Your task to perform on an android device: Search for Mexican restaurants on Maps Image 0: 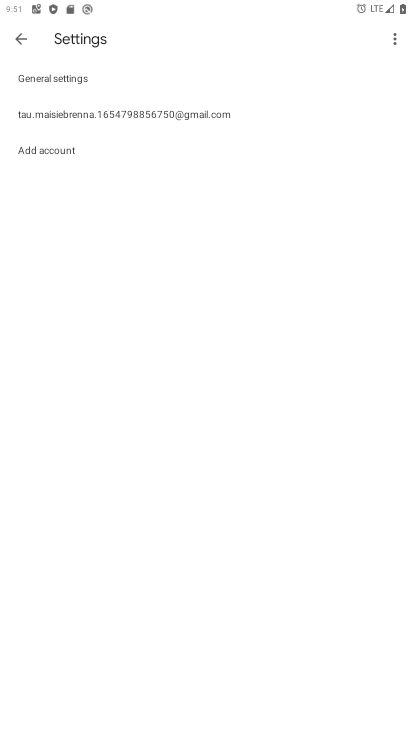
Step 0: press home button
Your task to perform on an android device: Search for Mexican restaurants on Maps Image 1: 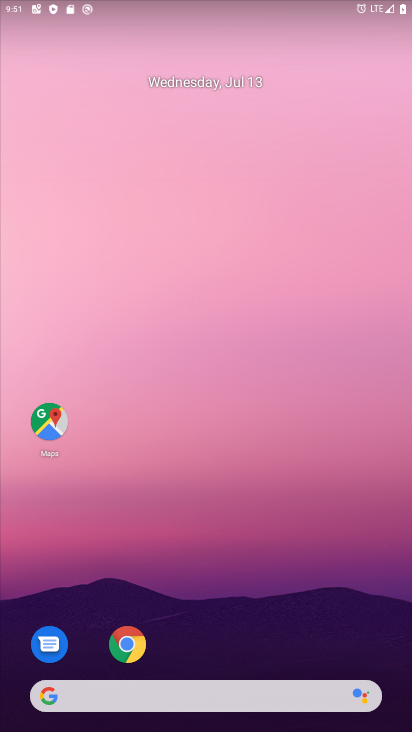
Step 1: drag from (207, 727) to (194, 163)
Your task to perform on an android device: Search for Mexican restaurants on Maps Image 2: 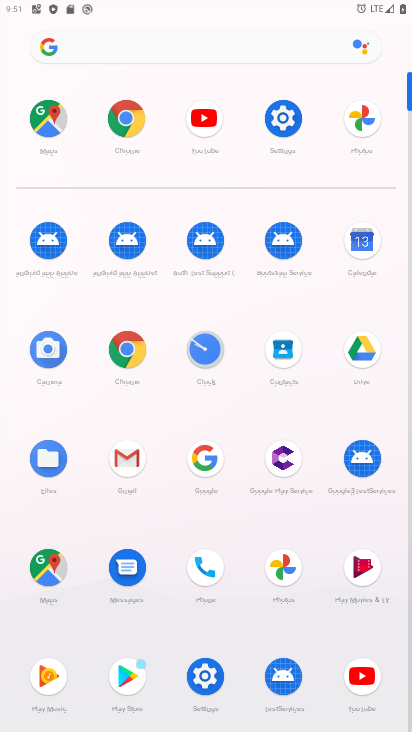
Step 2: click (51, 567)
Your task to perform on an android device: Search for Mexican restaurants on Maps Image 3: 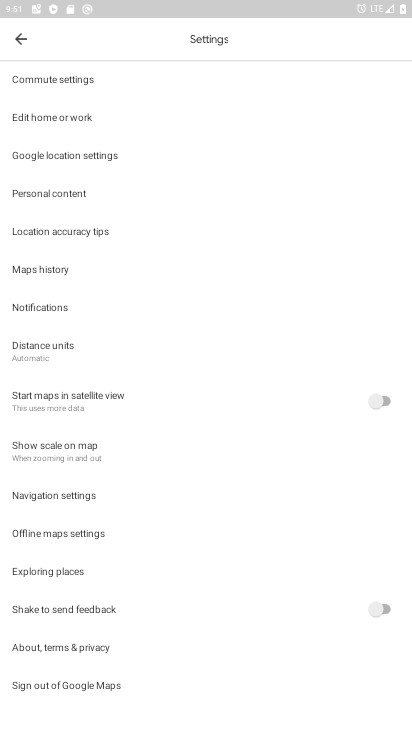
Step 3: click (24, 36)
Your task to perform on an android device: Search for Mexican restaurants on Maps Image 4: 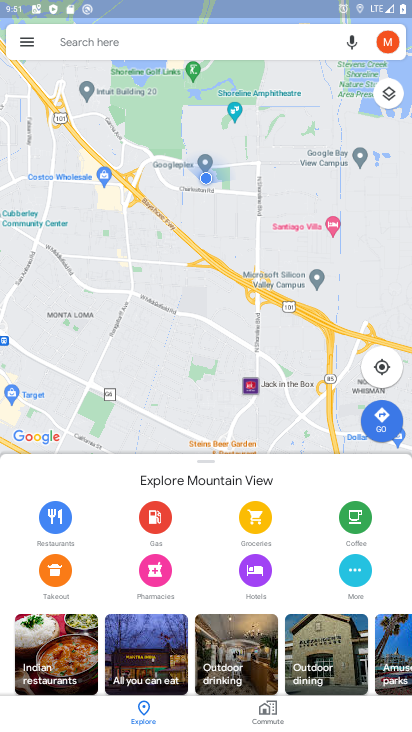
Step 4: click (192, 31)
Your task to perform on an android device: Search for Mexican restaurants on Maps Image 5: 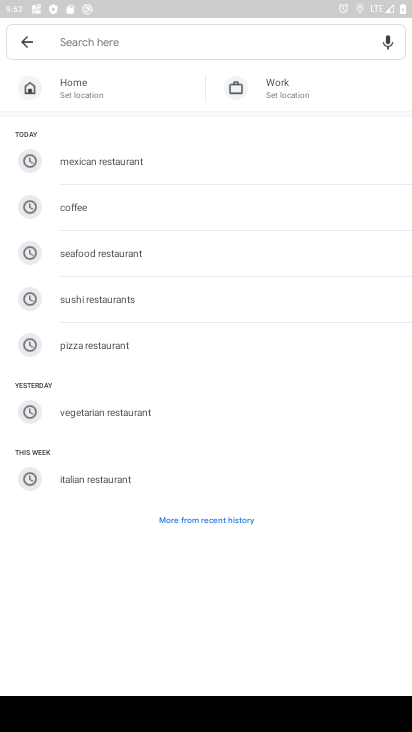
Step 5: type "Mexican restaurants"
Your task to perform on an android device: Search for Mexican restaurants on Maps Image 6: 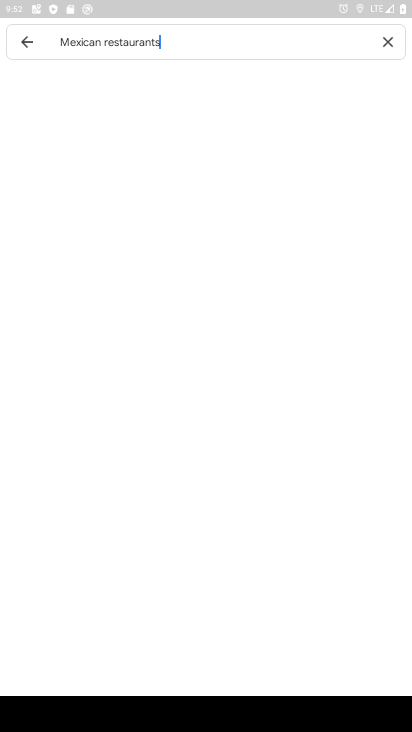
Step 6: type ""
Your task to perform on an android device: Search for Mexican restaurants on Maps Image 7: 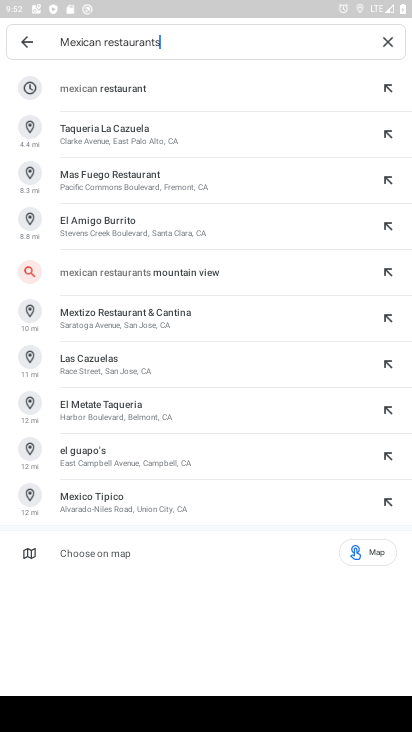
Step 7: click (129, 90)
Your task to perform on an android device: Search for Mexican restaurants on Maps Image 8: 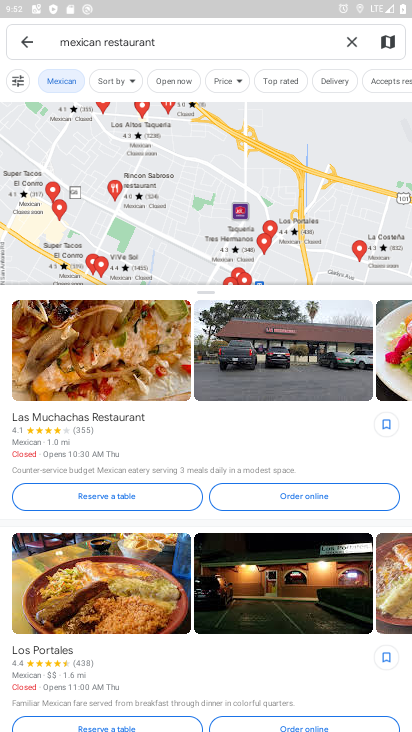
Step 8: task complete